Your task to perform on an android device: Go to Amazon Image 0: 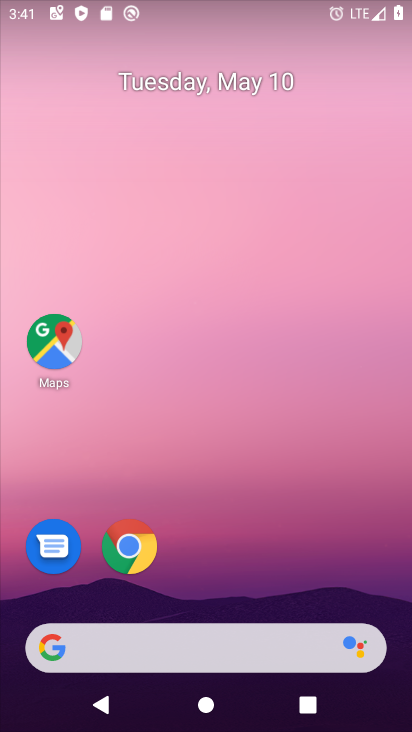
Step 0: drag from (216, 593) to (231, 122)
Your task to perform on an android device: Go to Amazon Image 1: 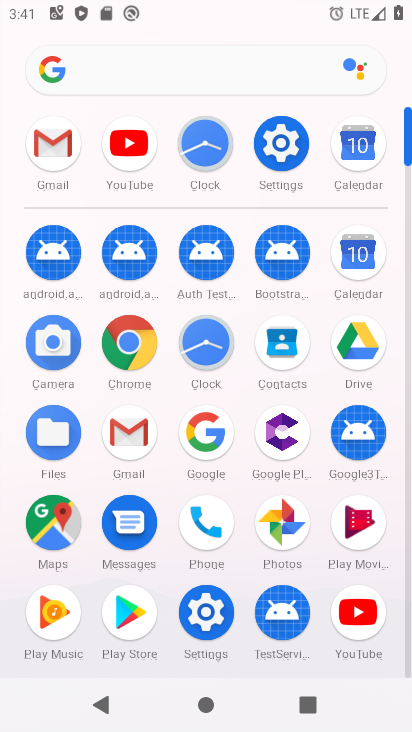
Step 1: click (135, 350)
Your task to perform on an android device: Go to Amazon Image 2: 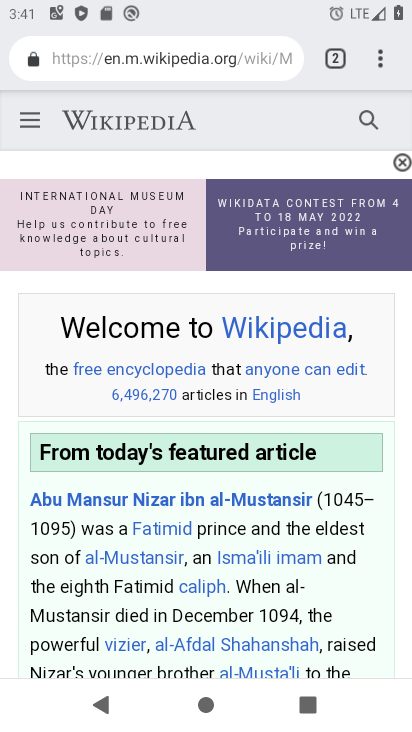
Step 2: click (260, 56)
Your task to perform on an android device: Go to Amazon Image 3: 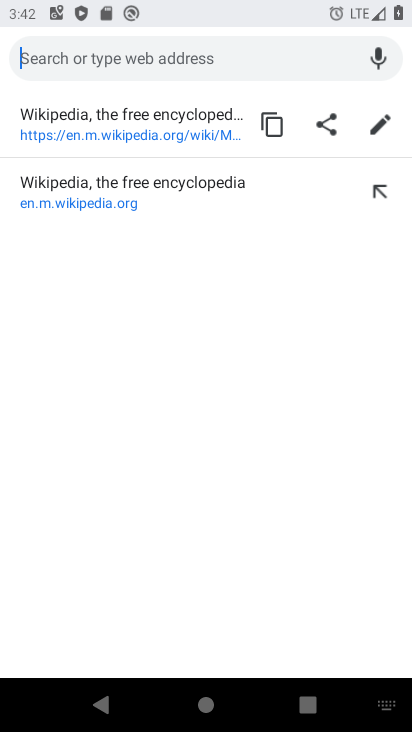
Step 3: type "Amazon"
Your task to perform on an android device: Go to Amazon Image 4: 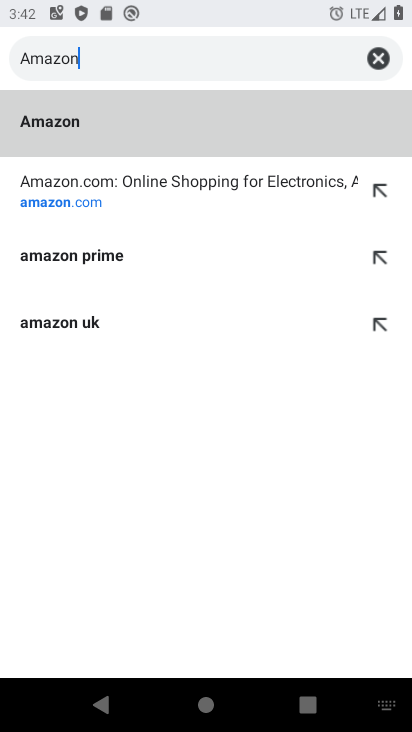
Step 4: click (64, 190)
Your task to perform on an android device: Go to Amazon Image 5: 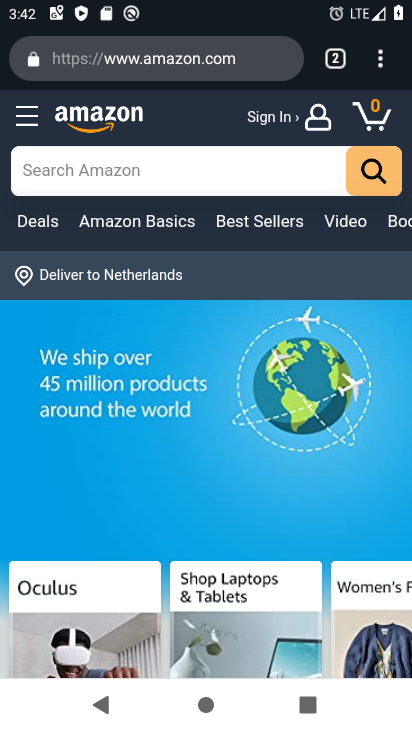
Step 5: task complete